Your task to perform on an android device: Go to battery settings Image 0: 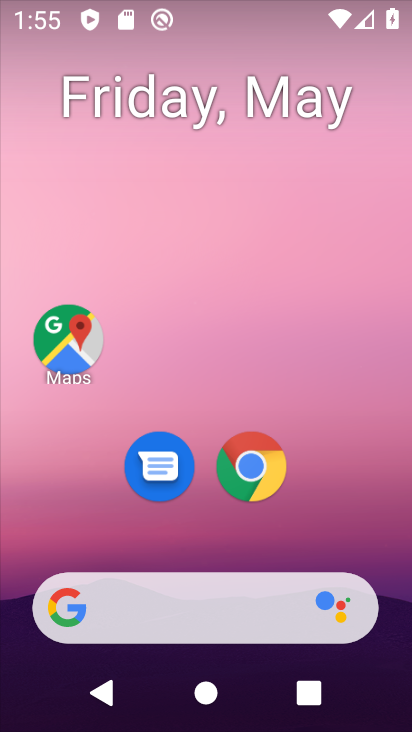
Step 0: drag from (344, 530) to (351, 107)
Your task to perform on an android device: Go to battery settings Image 1: 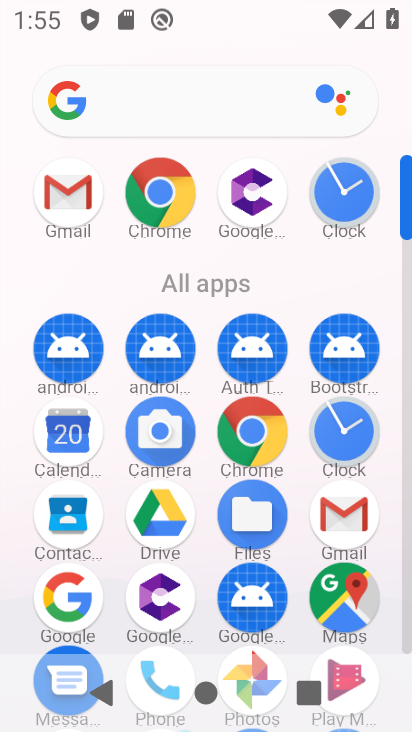
Step 1: drag from (279, 310) to (315, 23)
Your task to perform on an android device: Go to battery settings Image 2: 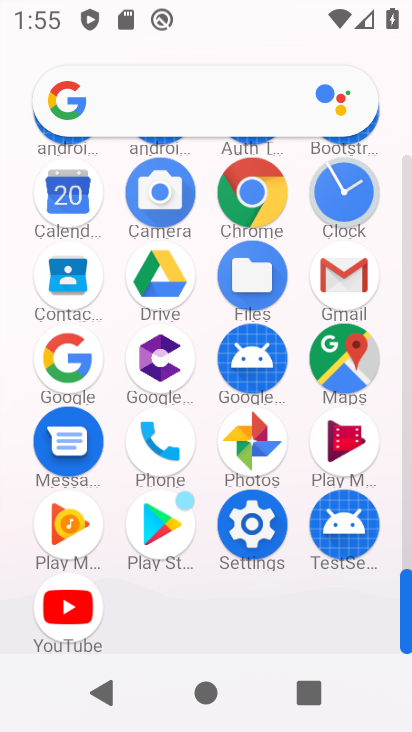
Step 2: click (256, 522)
Your task to perform on an android device: Go to battery settings Image 3: 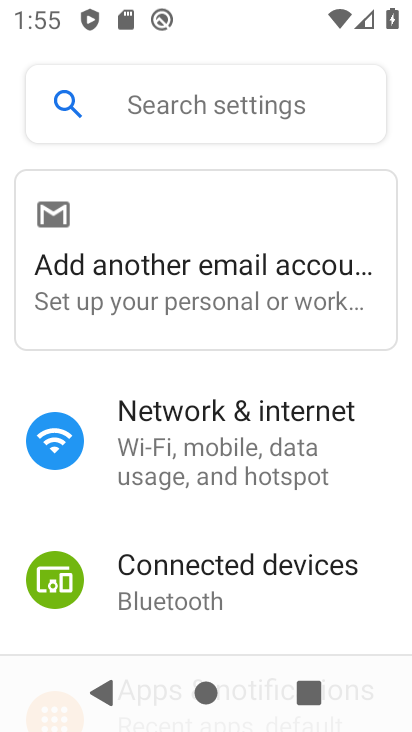
Step 3: drag from (353, 589) to (341, 185)
Your task to perform on an android device: Go to battery settings Image 4: 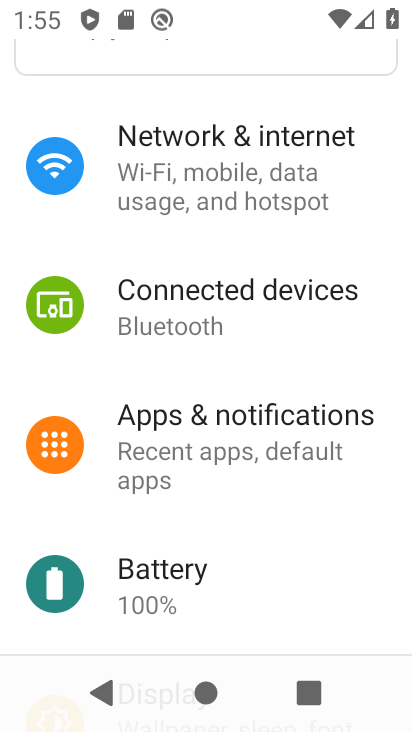
Step 4: click (169, 580)
Your task to perform on an android device: Go to battery settings Image 5: 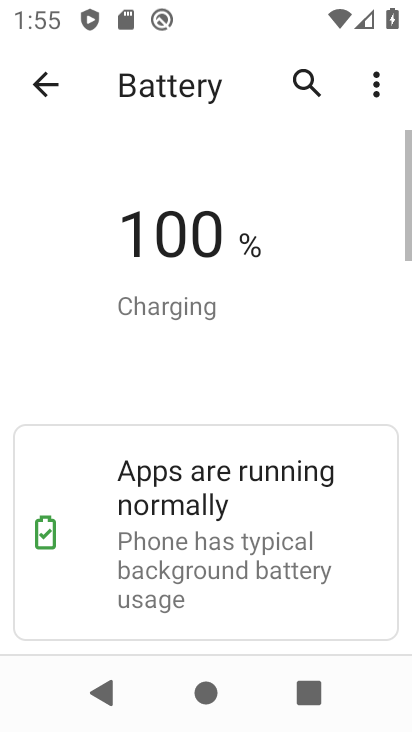
Step 5: task complete